Your task to perform on an android device: add a contact in the contacts app Image 0: 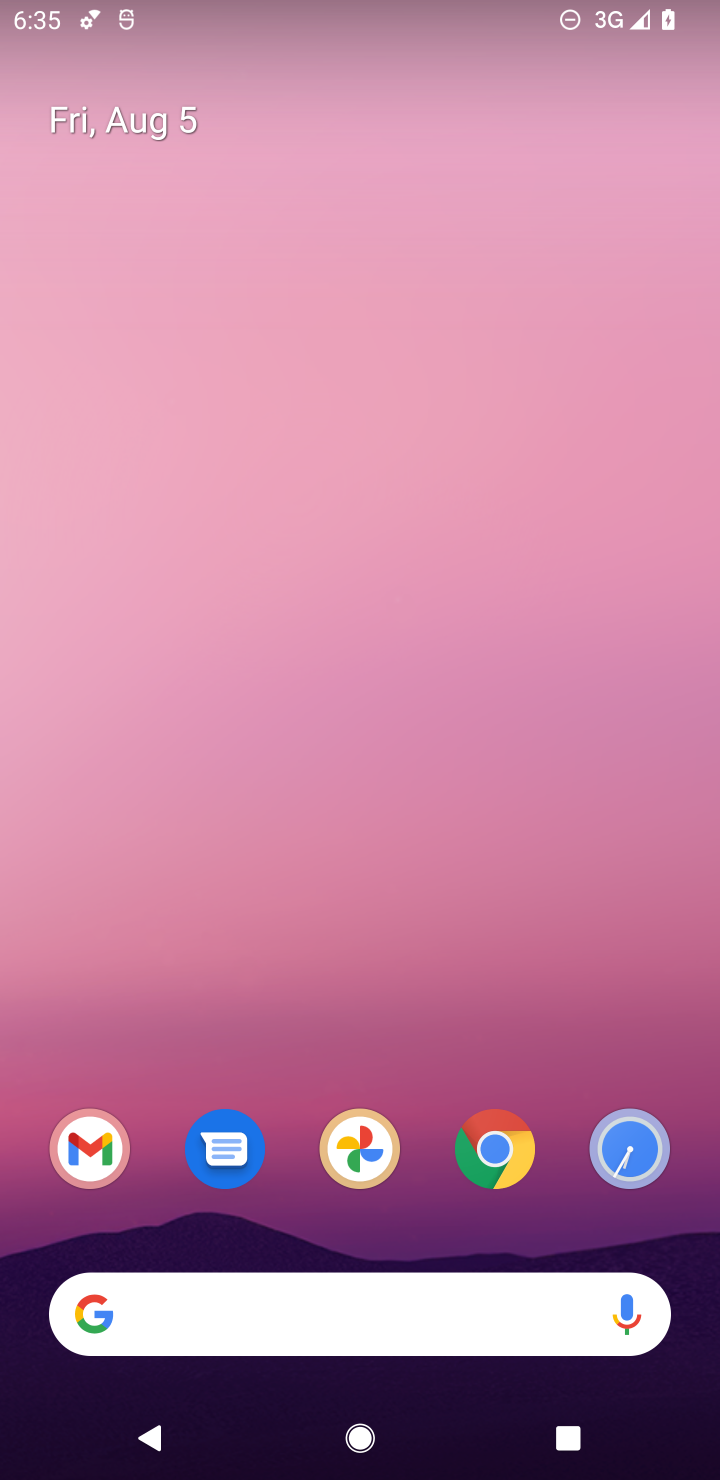
Step 0: drag from (187, 1065) to (178, 356)
Your task to perform on an android device: add a contact in the contacts app Image 1: 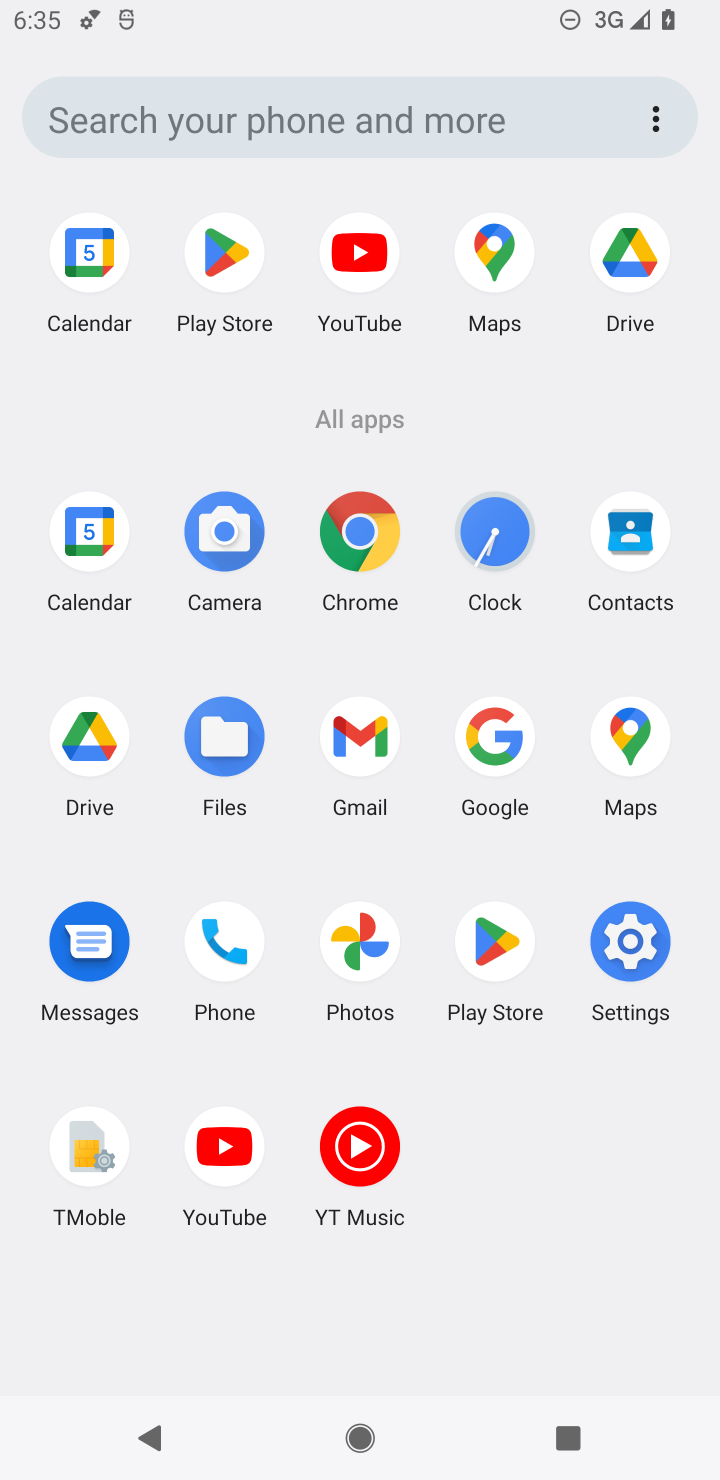
Step 1: click (207, 946)
Your task to perform on an android device: add a contact in the contacts app Image 2: 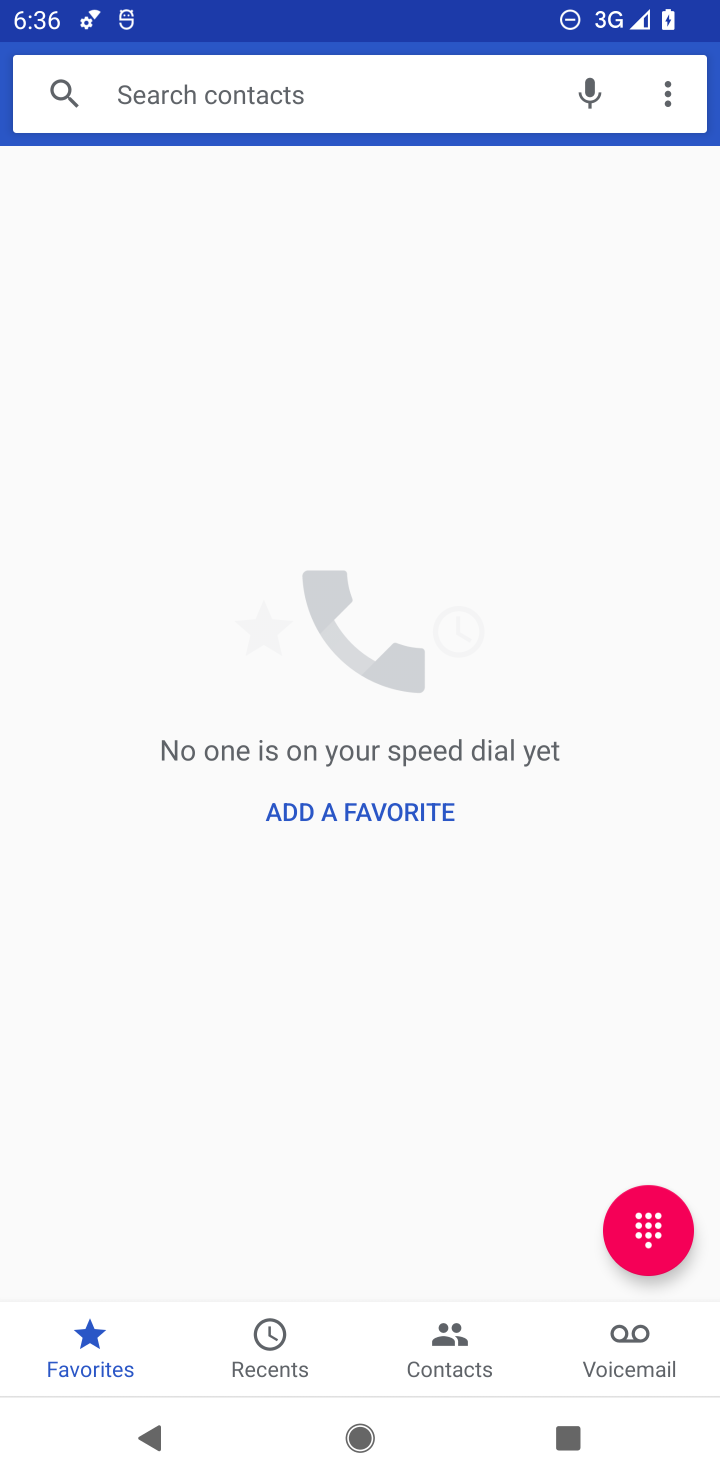
Step 2: click (462, 1341)
Your task to perform on an android device: add a contact in the contacts app Image 3: 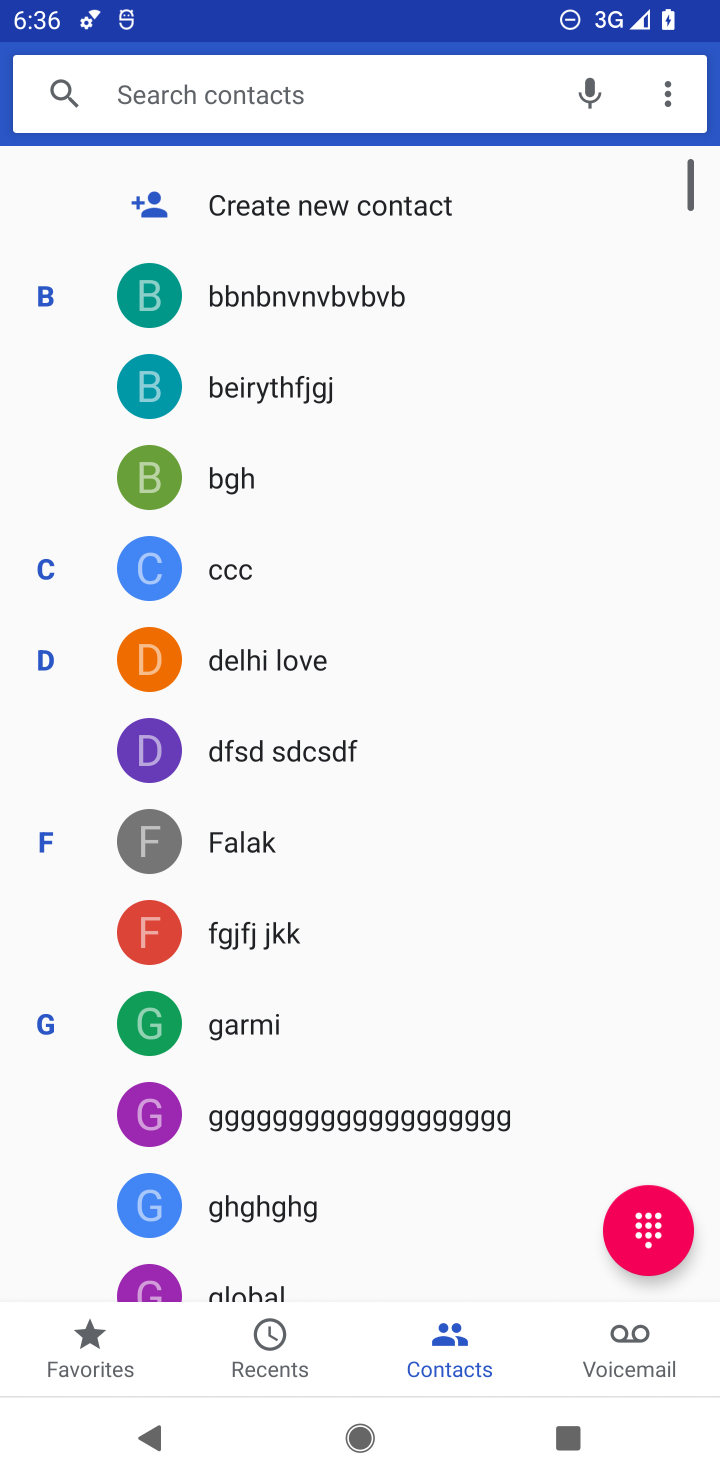
Step 3: click (285, 193)
Your task to perform on an android device: add a contact in the contacts app Image 4: 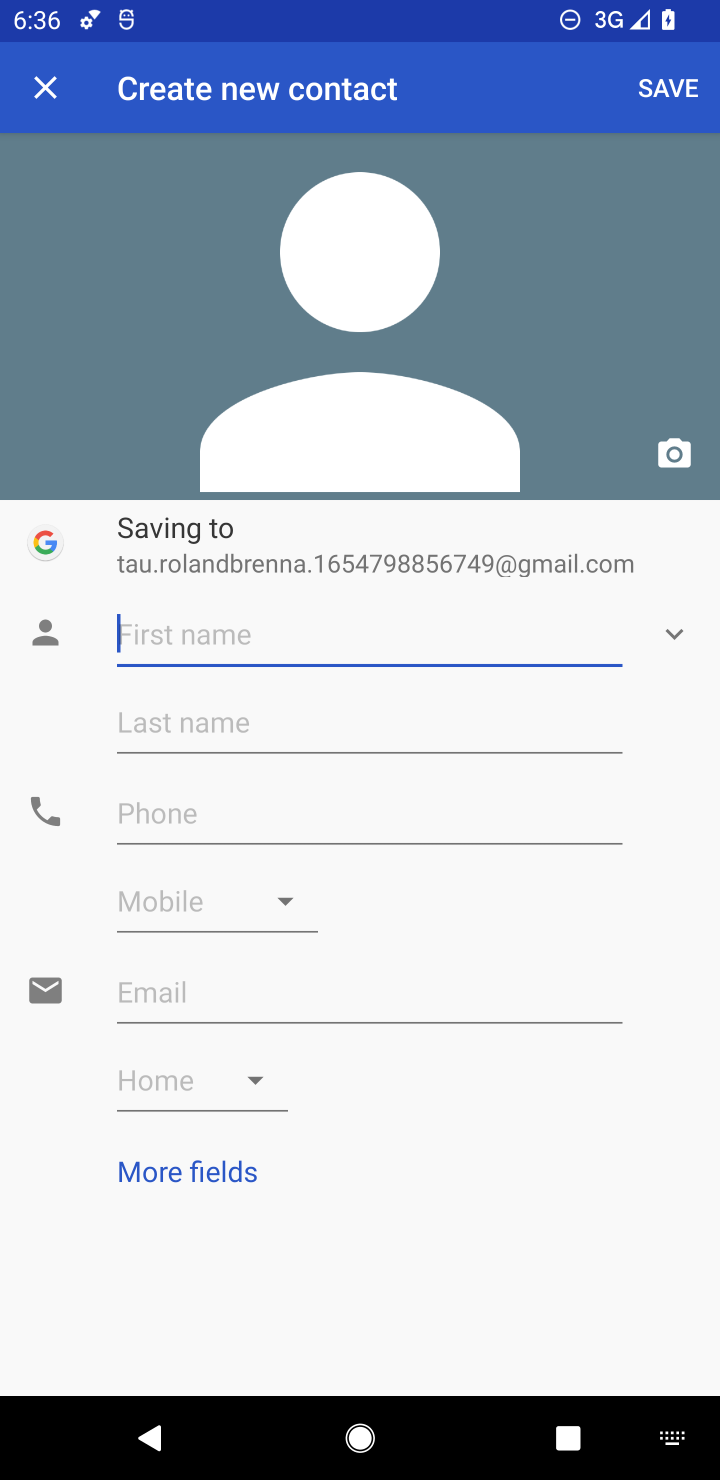
Step 4: type "Pillu"
Your task to perform on an android device: add a contact in the contacts app Image 5: 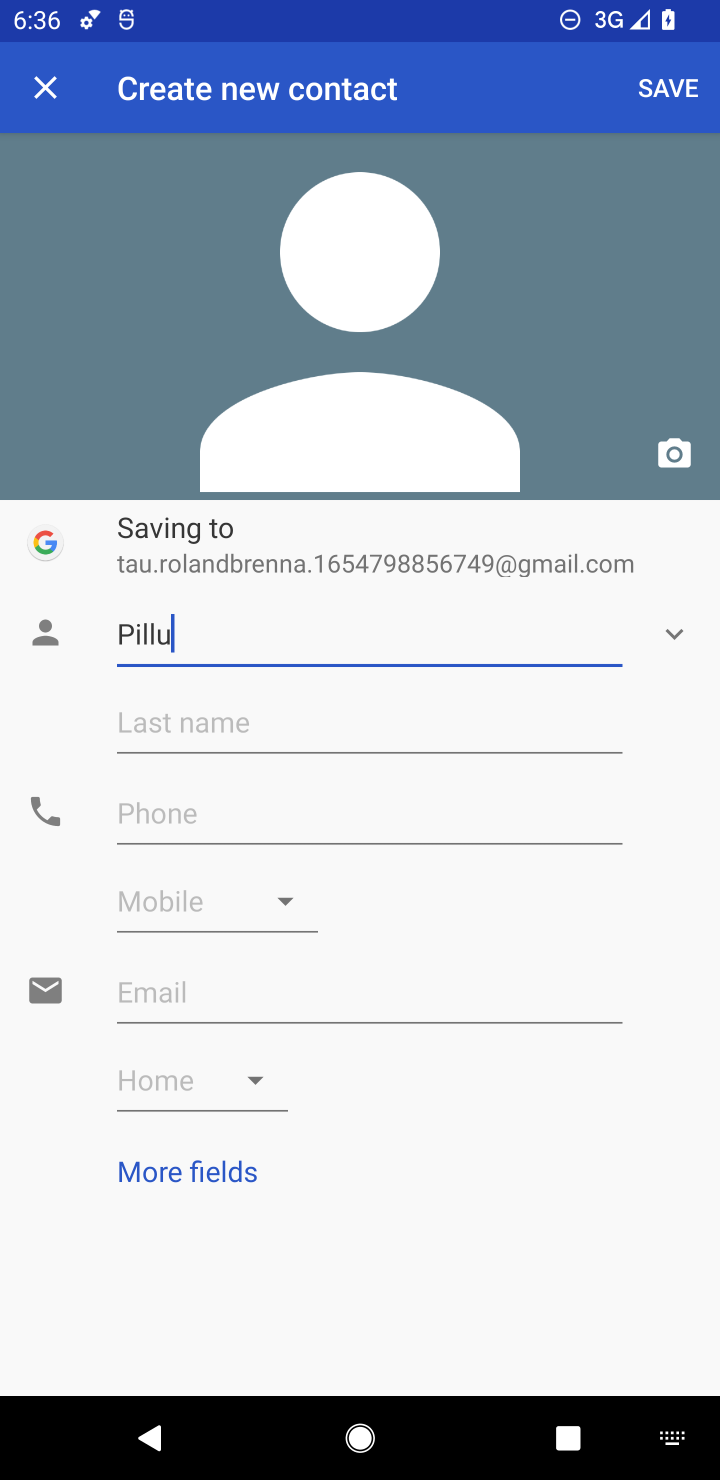
Step 5: click (299, 706)
Your task to perform on an android device: add a contact in the contacts app Image 6: 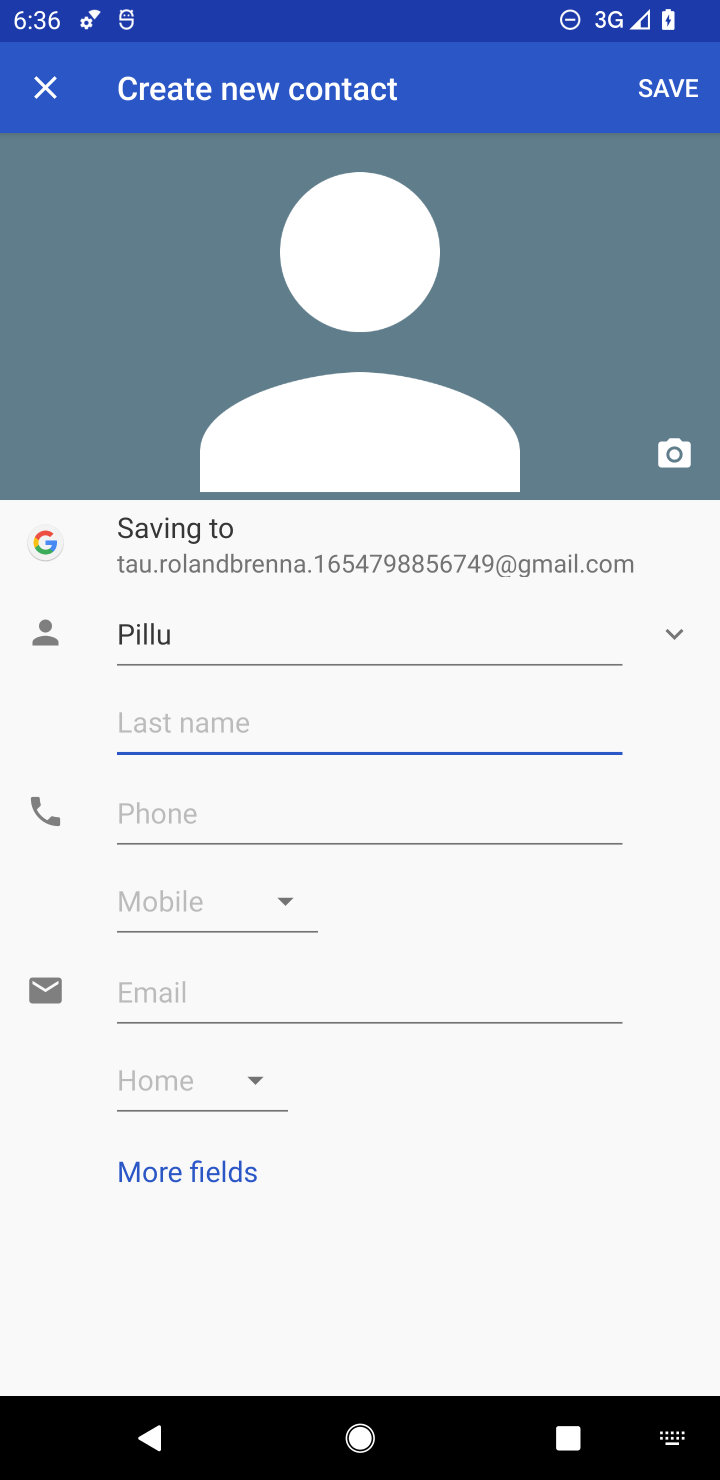
Step 6: type "Badshah"
Your task to perform on an android device: add a contact in the contacts app Image 7: 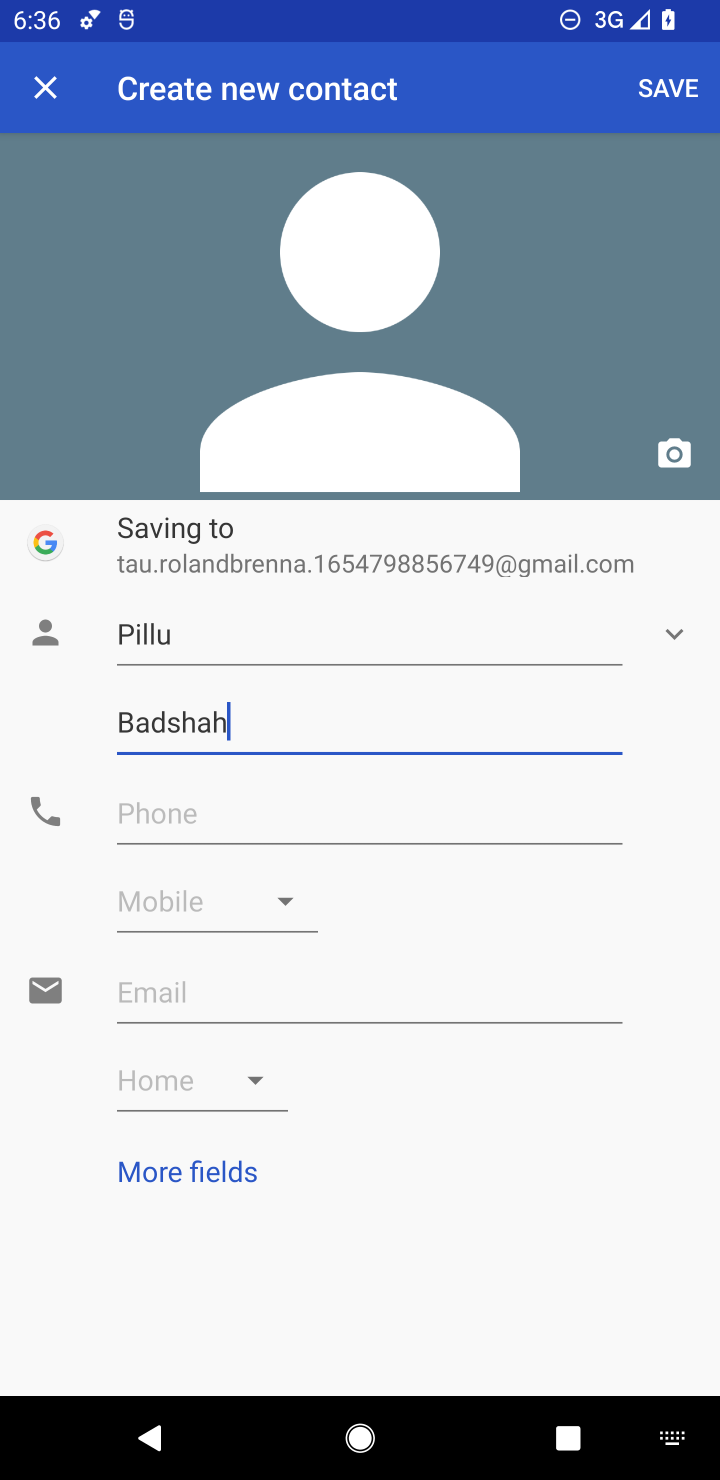
Step 7: click (335, 820)
Your task to perform on an android device: add a contact in the contacts app Image 8: 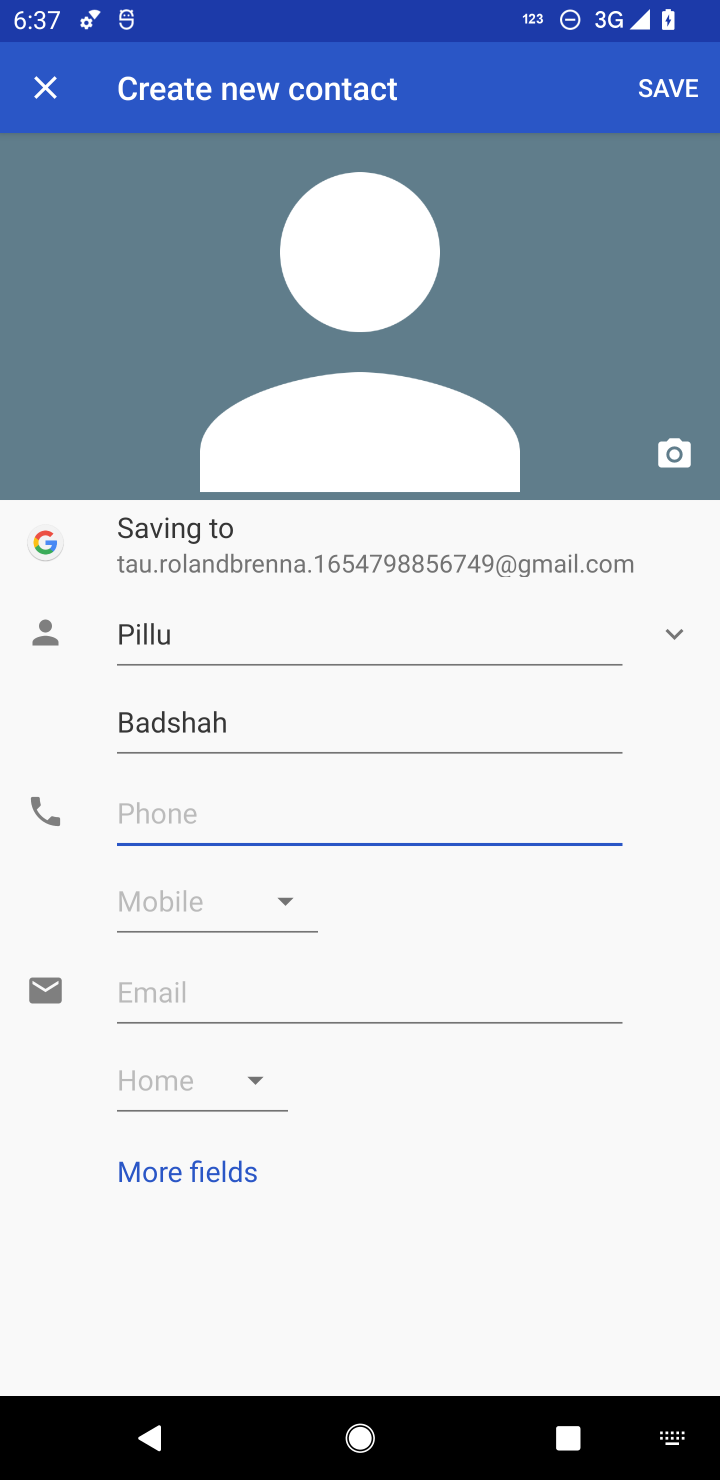
Step 8: type "123314"
Your task to perform on an android device: add a contact in the contacts app Image 9: 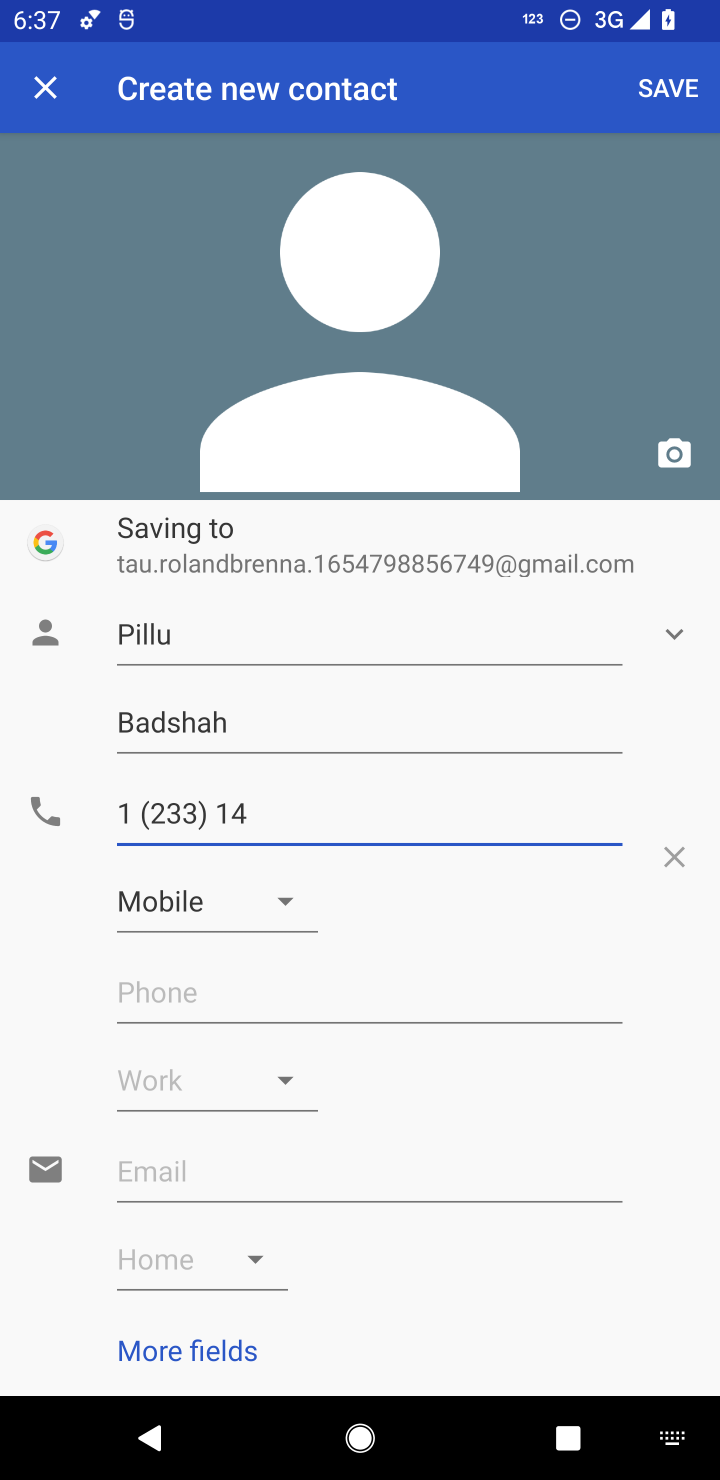
Step 9: click (655, 98)
Your task to perform on an android device: add a contact in the contacts app Image 10: 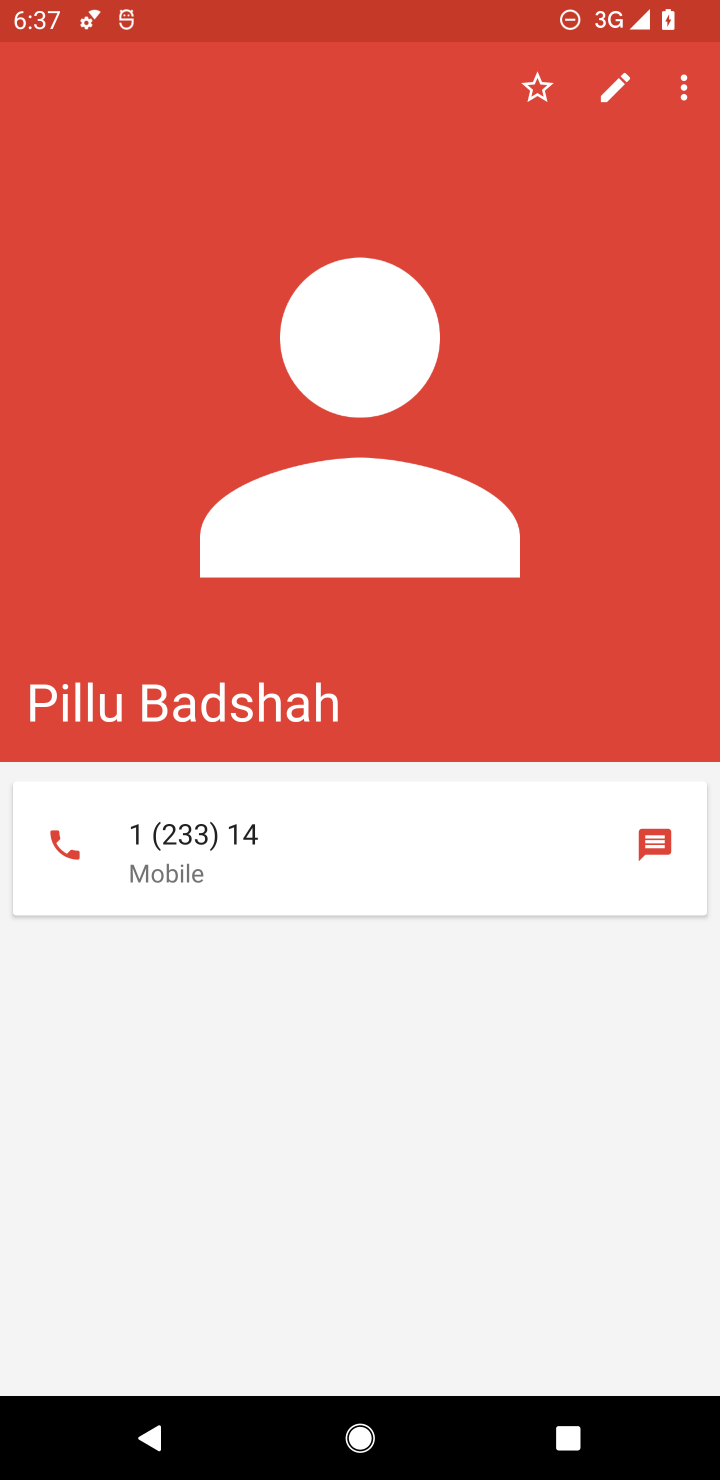
Step 10: task complete